Your task to perform on an android device: Play the last video I watched on Youtube Image 0: 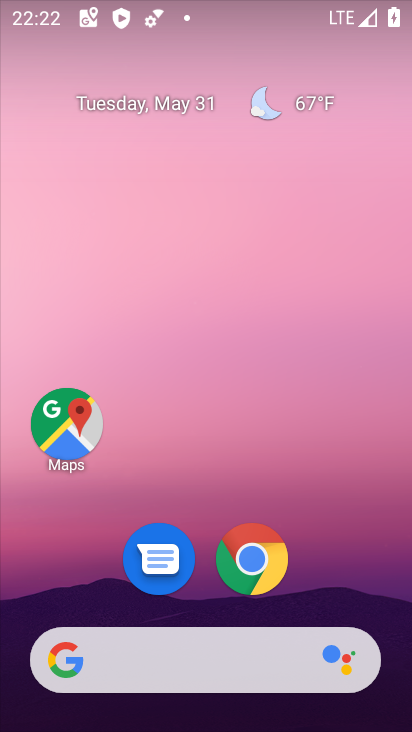
Step 0: drag from (333, 573) to (309, 38)
Your task to perform on an android device: Play the last video I watched on Youtube Image 1: 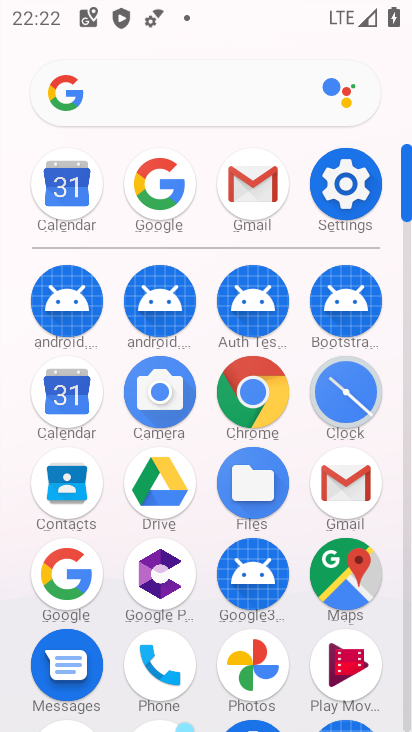
Step 1: drag from (213, 618) to (224, 120)
Your task to perform on an android device: Play the last video I watched on Youtube Image 2: 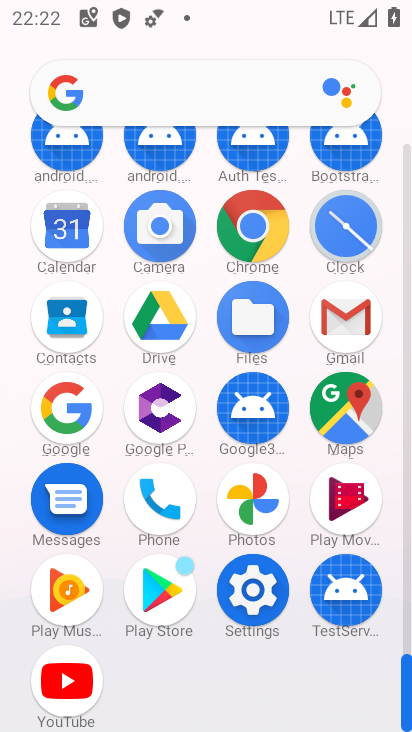
Step 2: click (68, 680)
Your task to perform on an android device: Play the last video I watched on Youtube Image 3: 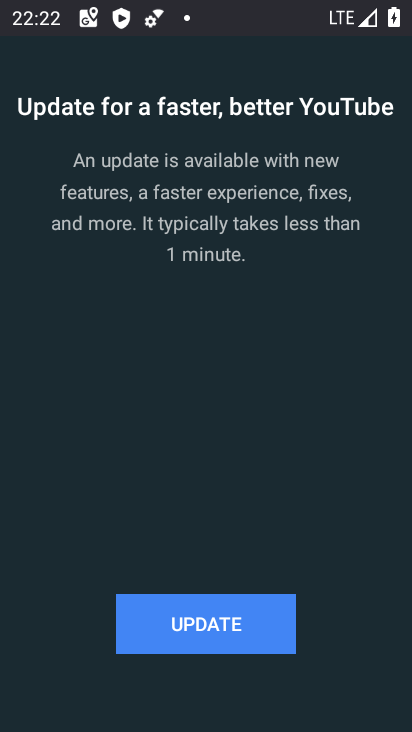
Step 3: click (222, 621)
Your task to perform on an android device: Play the last video I watched on Youtube Image 4: 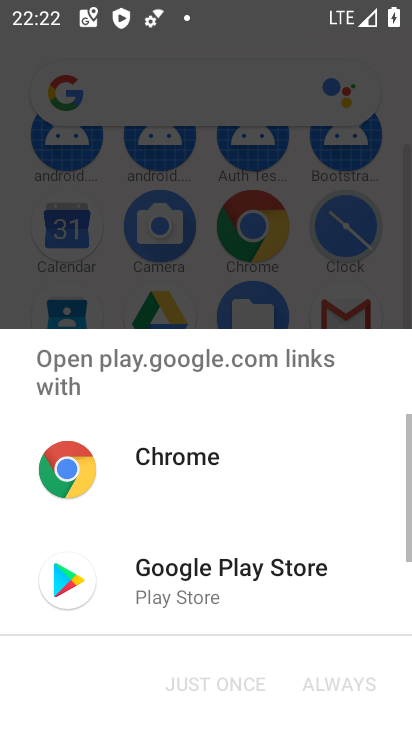
Step 4: click (189, 585)
Your task to perform on an android device: Play the last video I watched on Youtube Image 5: 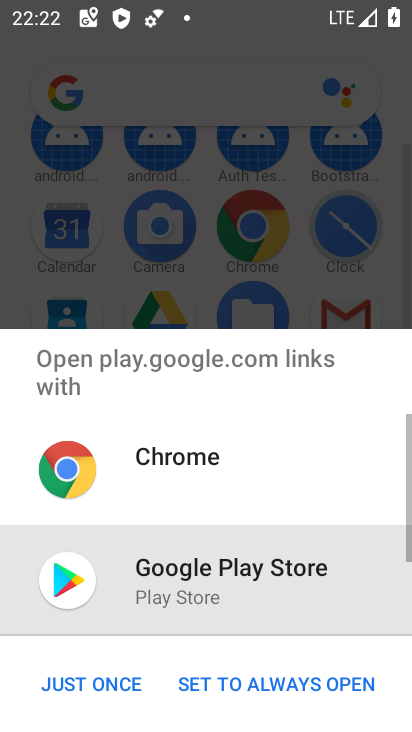
Step 5: click (73, 681)
Your task to perform on an android device: Play the last video I watched on Youtube Image 6: 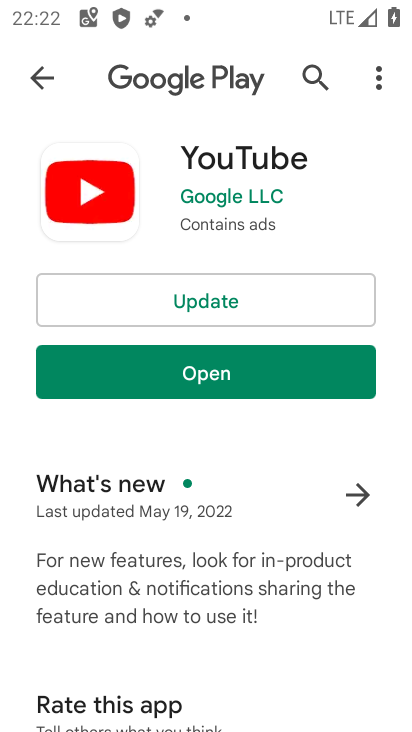
Step 6: click (224, 304)
Your task to perform on an android device: Play the last video I watched on Youtube Image 7: 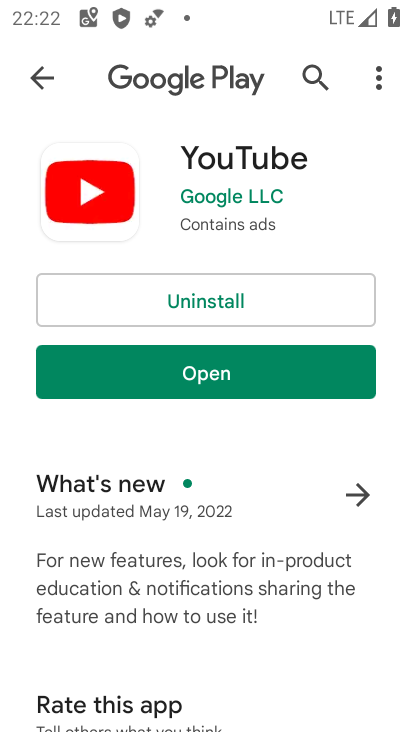
Step 7: click (148, 384)
Your task to perform on an android device: Play the last video I watched on Youtube Image 8: 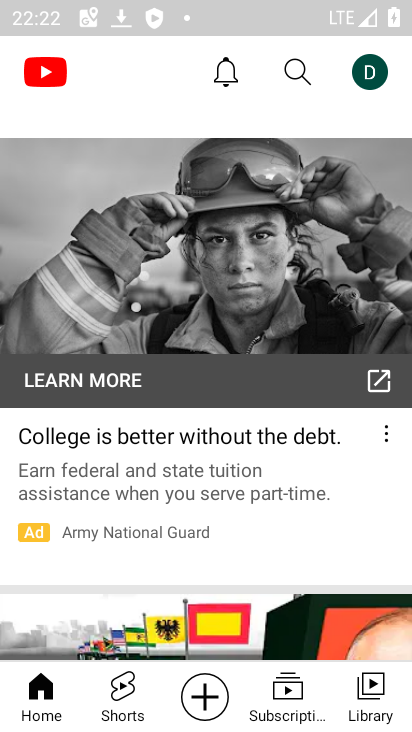
Step 8: click (300, 64)
Your task to perform on an android device: Play the last video I watched on Youtube Image 9: 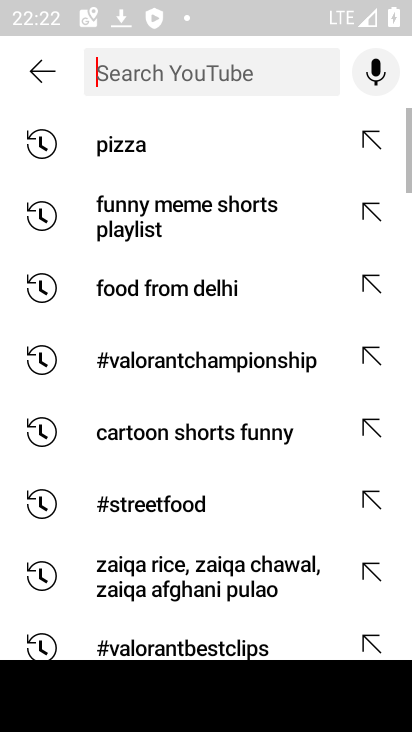
Step 9: click (167, 144)
Your task to perform on an android device: Play the last video I watched on Youtube Image 10: 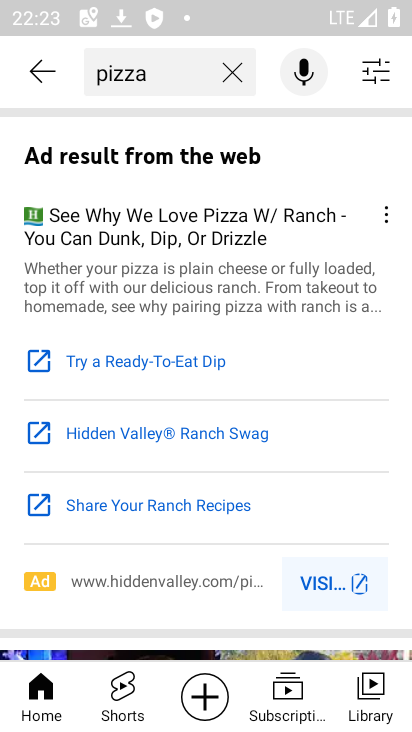
Step 10: drag from (237, 594) to (238, 284)
Your task to perform on an android device: Play the last video I watched on Youtube Image 11: 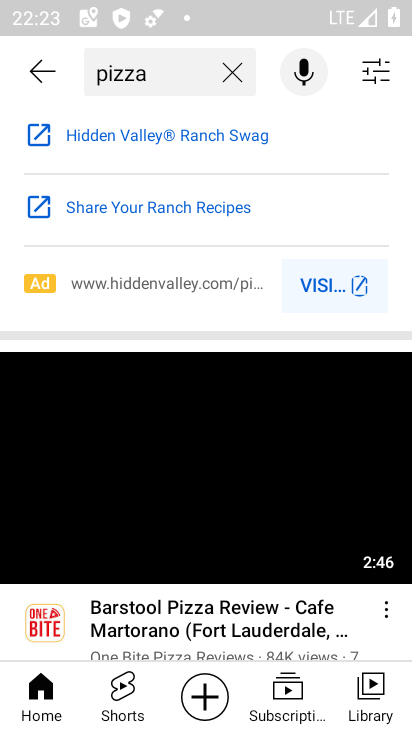
Step 11: click (257, 521)
Your task to perform on an android device: Play the last video I watched on Youtube Image 12: 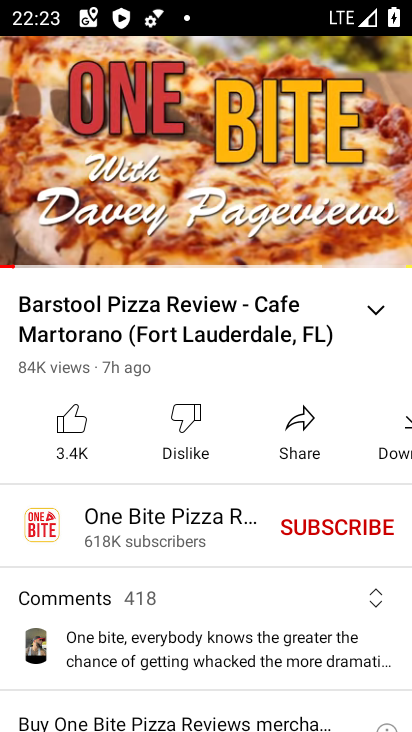
Step 12: task complete